Your task to perform on an android device: toggle notification dots Image 0: 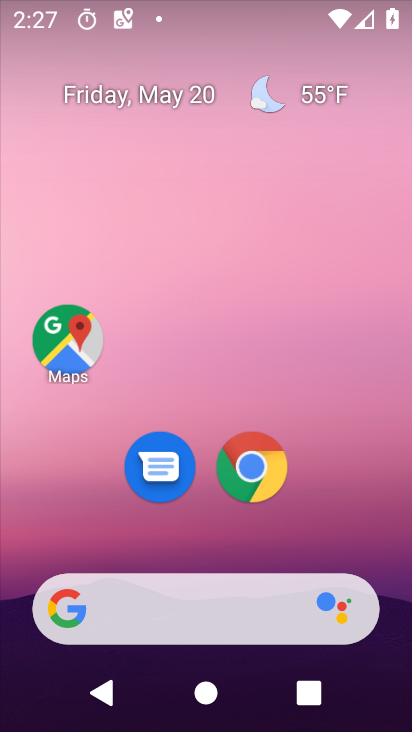
Step 0: drag from (298, 528) to (294, 75)
Your task to perform on an android device: toggle notification dots Image 1: 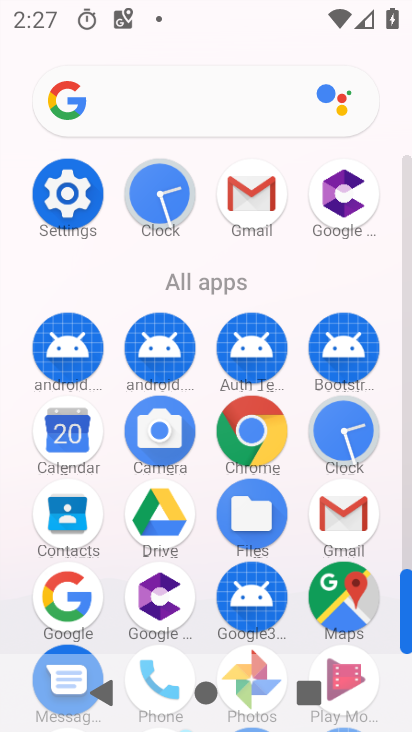
Step 1: click (46, 200)
Your task to perform on an android device: toggle notification dots Image 2: 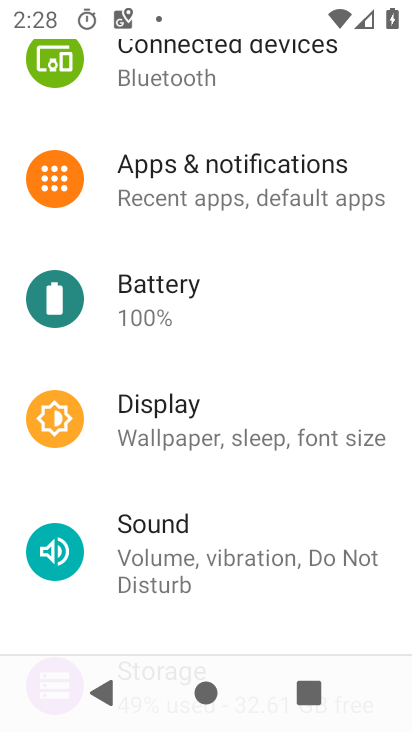
Step 2: drag from (214, 205) to (239, 359)
Your task to perform on an android device: toggle notification dots Image 3: 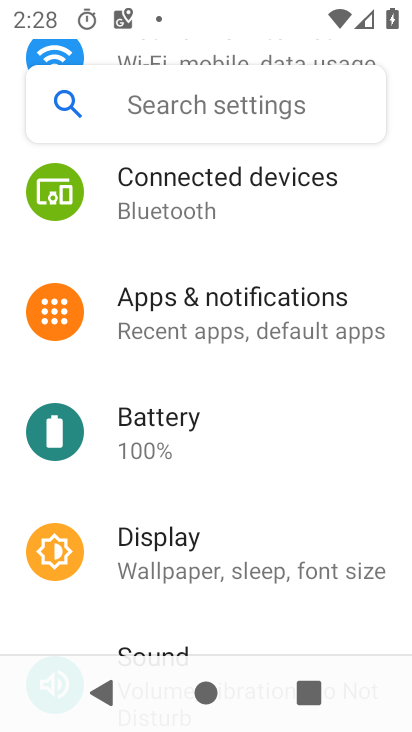
Step 3: click (221, 309)
Your task to perform on an android device: toggle notification dots Image 4: 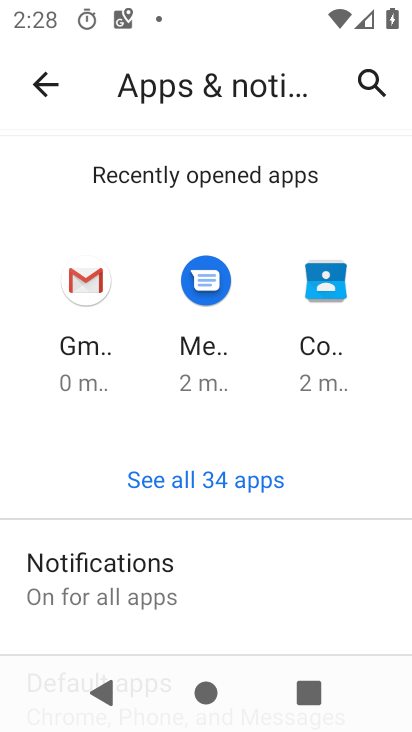
Step 4: click (169, 561)
Your task to perform on an android device: toggle notification dots Image 5: 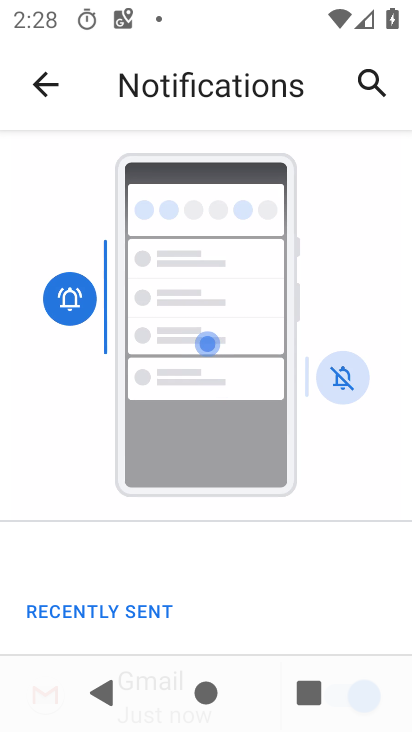
Step 5: drag from (161, 586) to (104, 215)
Your task to perform on an android device: toggle notification dots Image 6: 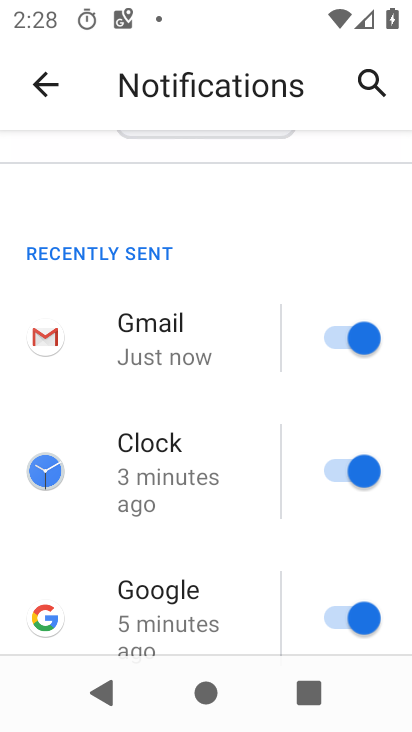
Step 6: drag from (144, 567) to (132, 111)
Your task to perform on an android device: toggle notification dots Image 7: 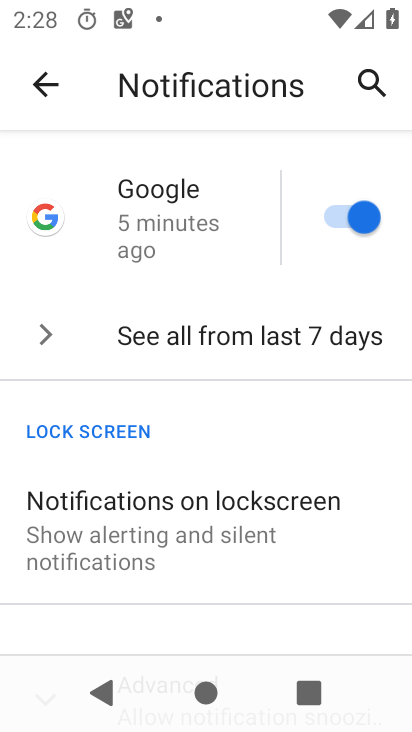
Step 7: drag from (126, 581) to (178, 246)
Your task to perform on an android device: toggle notification dots Image 8: 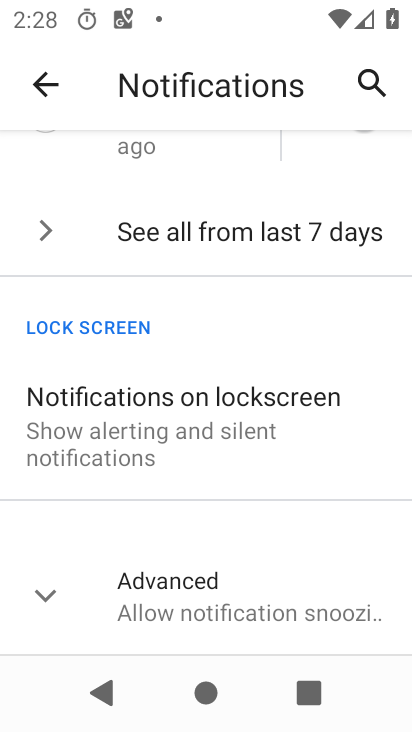
Step 8: drag from (212, 584) to (219, 398)
Your task to perform on an android device: toggle notification dots Image 9: 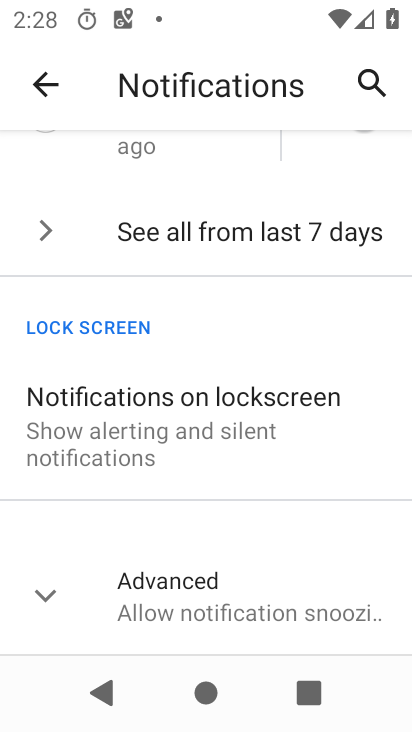
Step 9: click (212, 587)
Your task to perform on an android device: toggle notification dots Image 10: 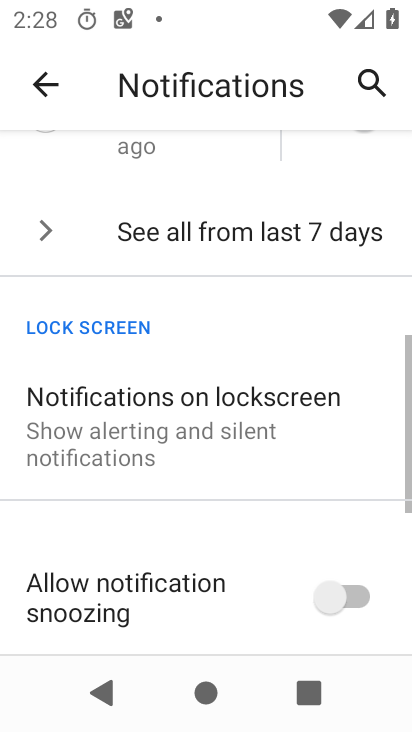
Step 10: drag from (214, 648) to (201, 296)
Your task to perform on an android device: toggle notification dots Image 11: 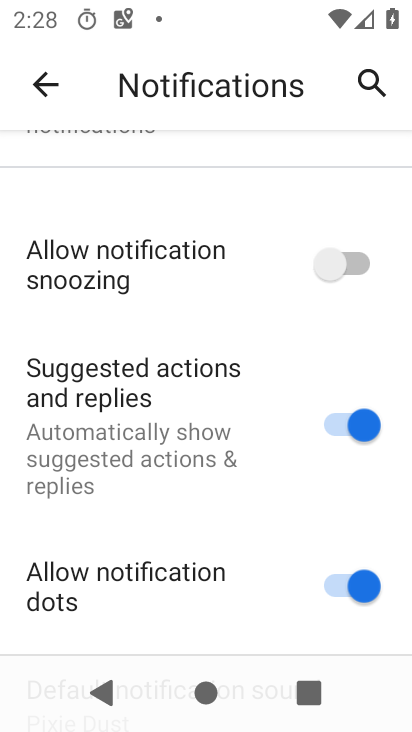
Step 11: click (350, 574)
Your task to perform on an android device: toggle notification dots Image 12: 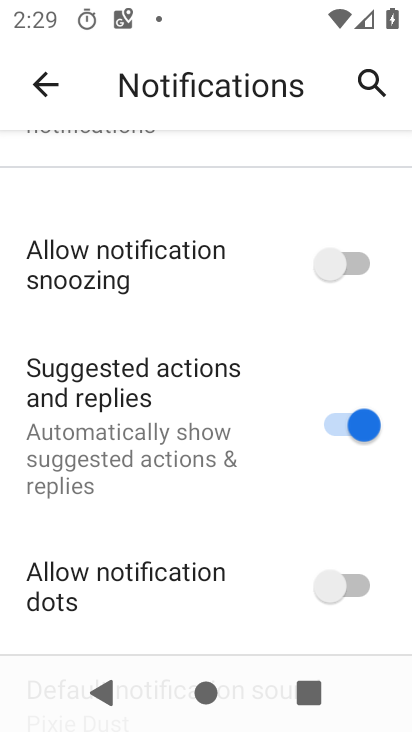
Step 12: task complete